Your task to perform on an android device: read, delete, or share a saved page in the chrome app Image 0: 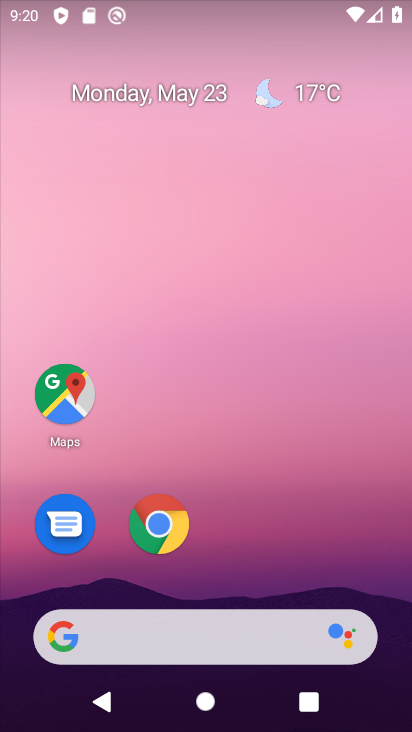
Step 0: drag from (277, 585) to (276, 192)
Your task to perform on an android device: read, delete, or share a saved page in the chrome app Image 1: 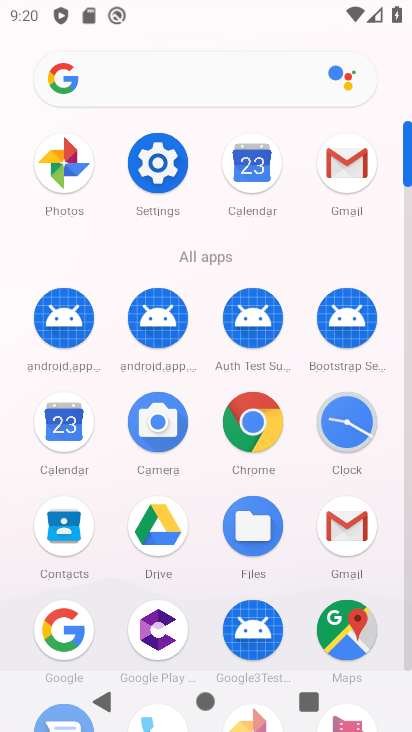
Step 1: click (254, 447)
Your task to perform on an android device: read, delete, or share a saved page in the chrome app Image 2: 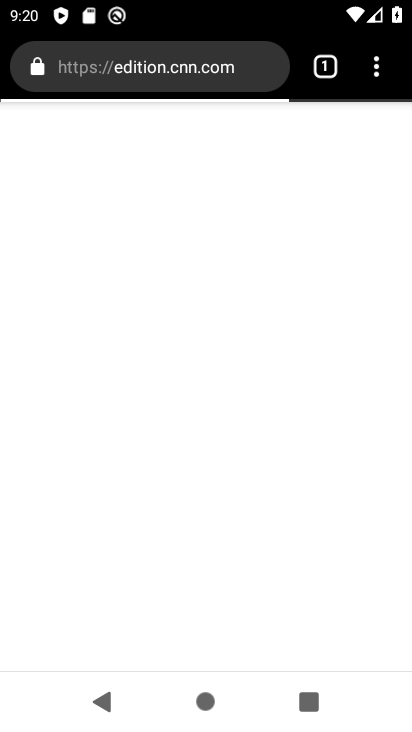
Step 2: drag from (375, 65) to (137, 490)
Your task to perform on an android device: read, delete, or share a saved page in the chrome app Image 3: 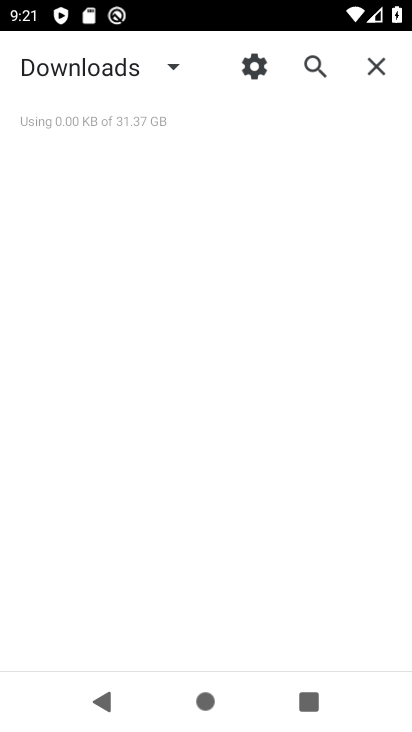
Step 3: click (164, 58)
Your task to perform on an android device: read, delete, or share a saved page in the chrome app Image 4: 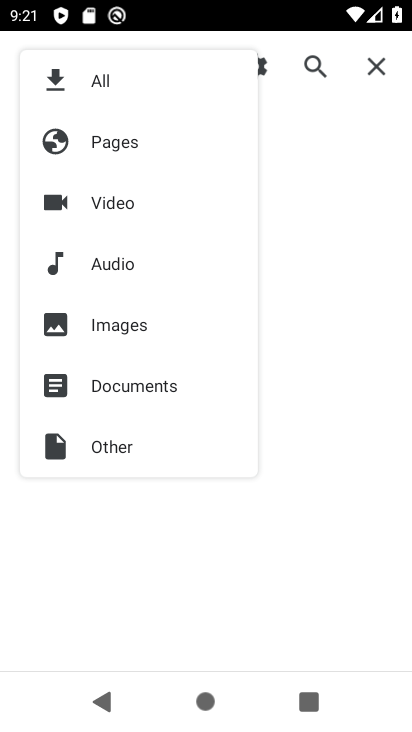
Step 4: click (102, 153)
Your task to perform on an android device: read, delete, or share a saved page in the chrome app Image 5: 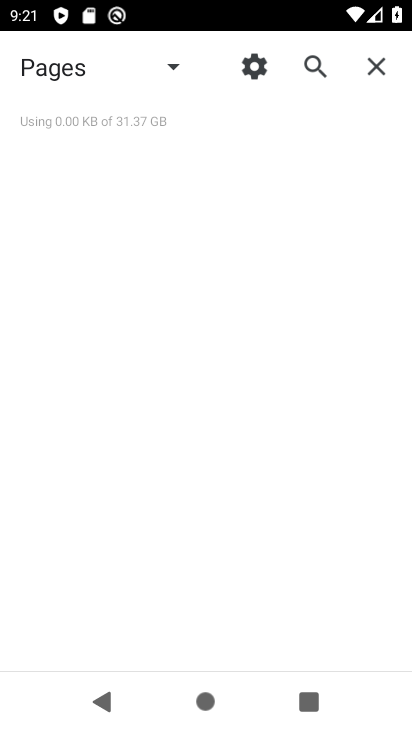
Step 5: task complete